Your task to perform on an android device: turn on sleep mode Image 0: 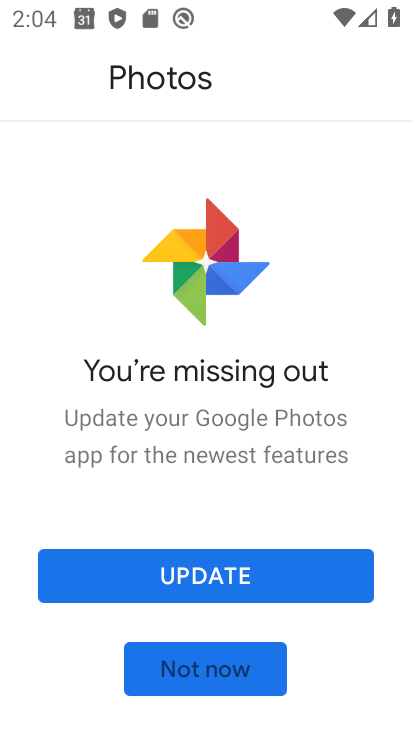
Step 0: press home button
Your task to perform on an android device: turn on sleep mode Image 1: 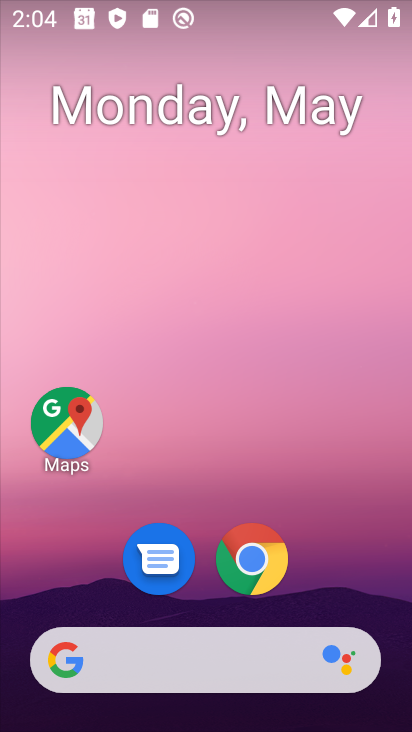
Step 1: drag from (361, 618) to (344, 13)
Your task to perform on an android device: turn on sleep mode Image 2: 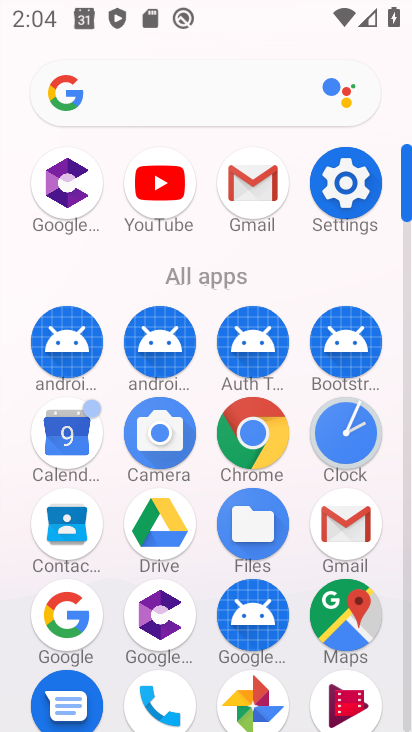
Step 2: click (349, 186)
Your task to perform on an android device: turn on sleep mode Image 3: 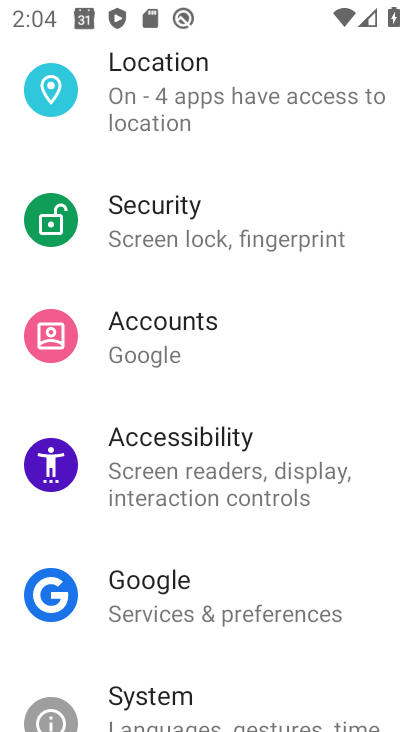
Step 3: drag from (331, 208) to (377, 523)
Your task to perform on an android device: turn on sleep mode Image 4: 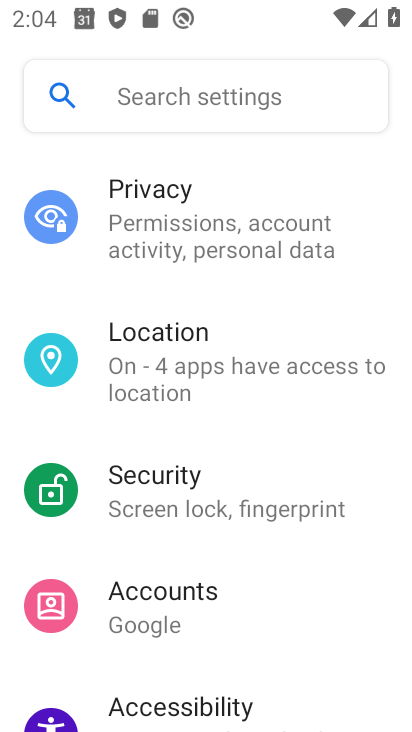
Step 4: drag from (305, 240) to (332, 533)
Your task to perform on an android device: turn on sleep mode Image 5: 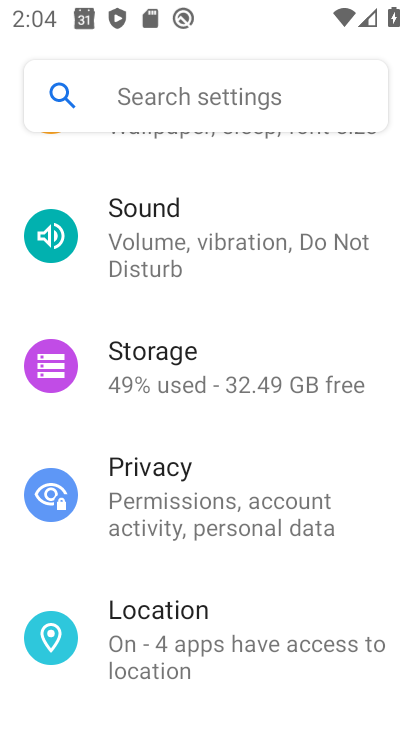
Step 5: drag from (296, 279) to (315, 593)
Your task to perform on an android device: turn on sleep mode Image 6: 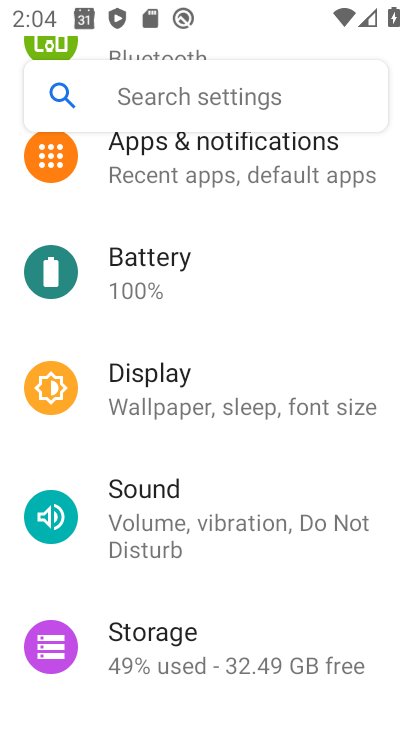
Step 6: click (138, 411)
Your task to perform on an android device: turn on sleep mode Image 7: 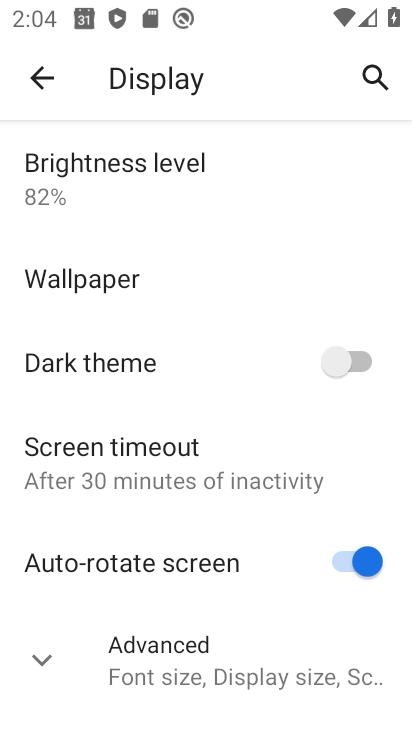
Step 7: click (43, 664)
Your task to perform on an android device: turn on sleep mode Image 8: 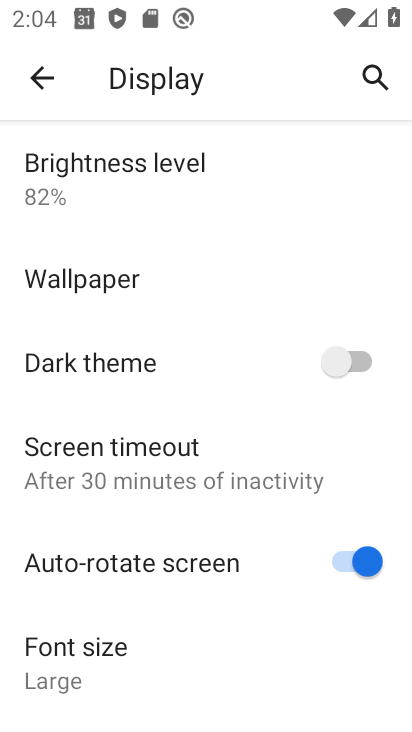
Step 8: task complete